Your task to perform on an android device: uninstall "The Home Depot" Image 0: 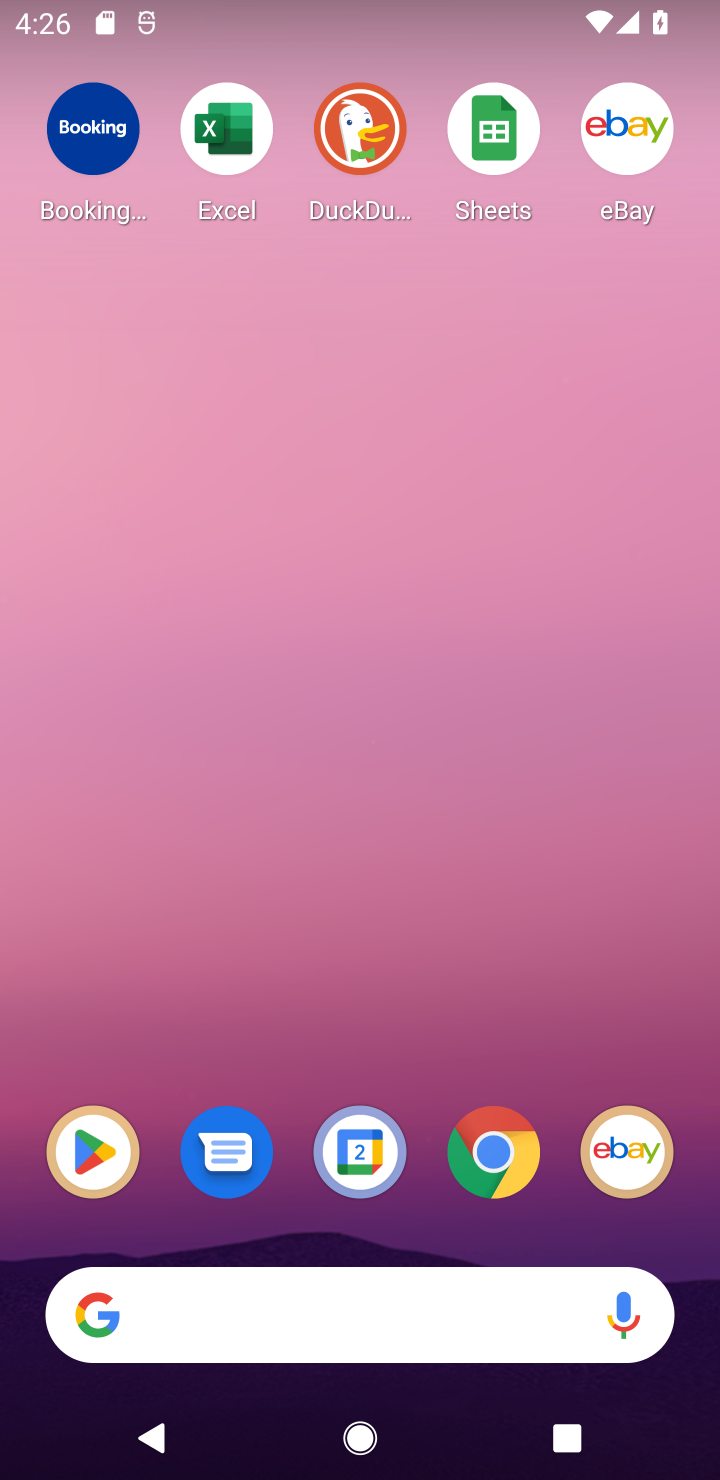
Step 0: drag from (321, 1251) to (401, 112)
Your task to perform on an android device: uninstall "The Home Depot" Image 1: 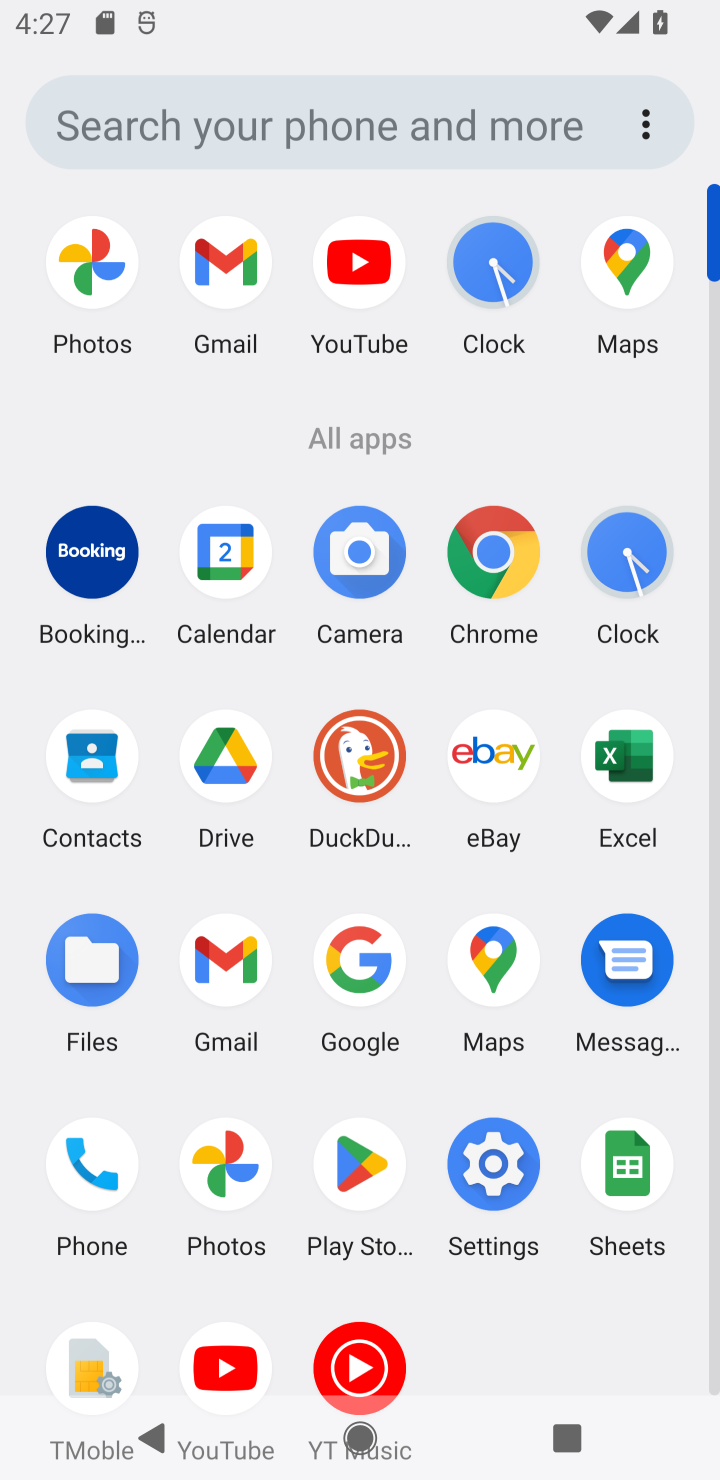
Step 1: click (361, 1155)
Your task to perform on an android device: uninstall "The Home Depot" Image 2: 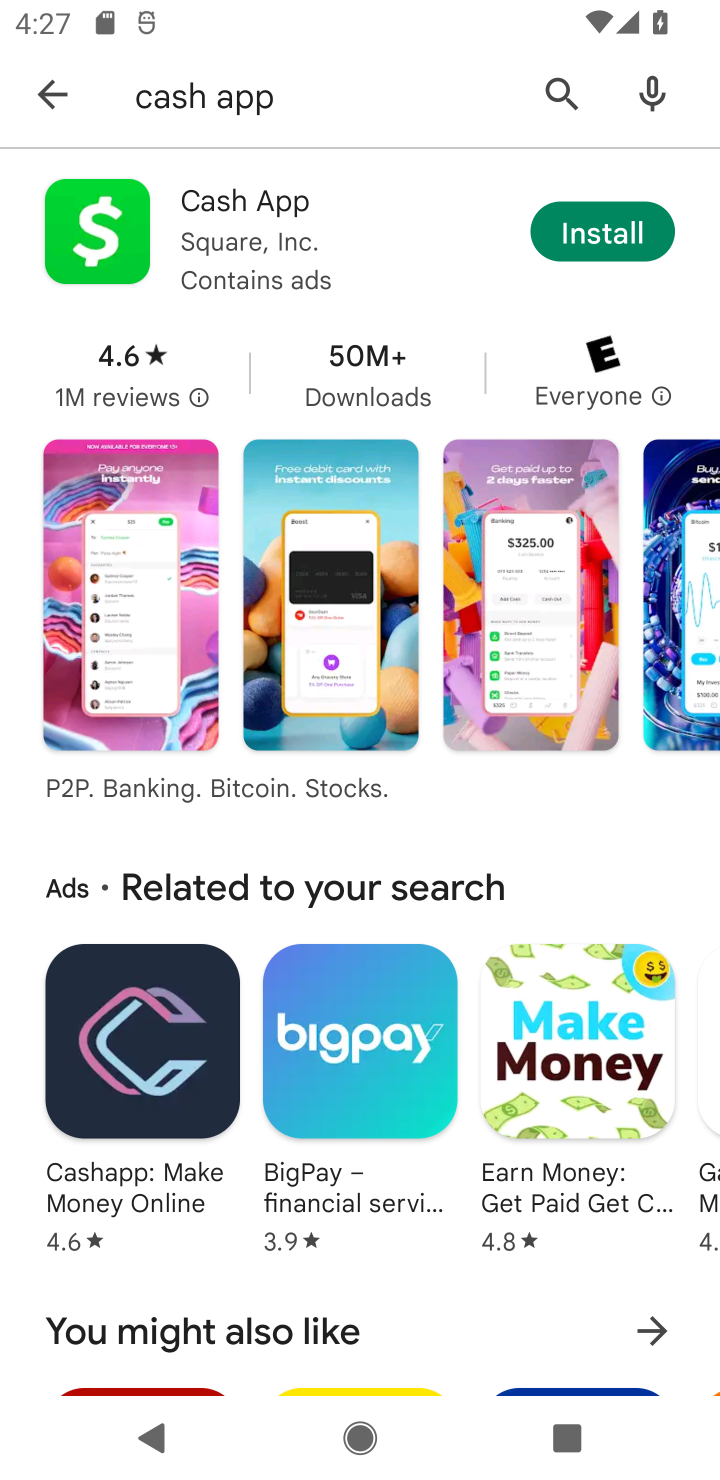
Step 2: click (50, 104)
Your task to perform on an android device: uninstall "The Home Depot" Image 3: 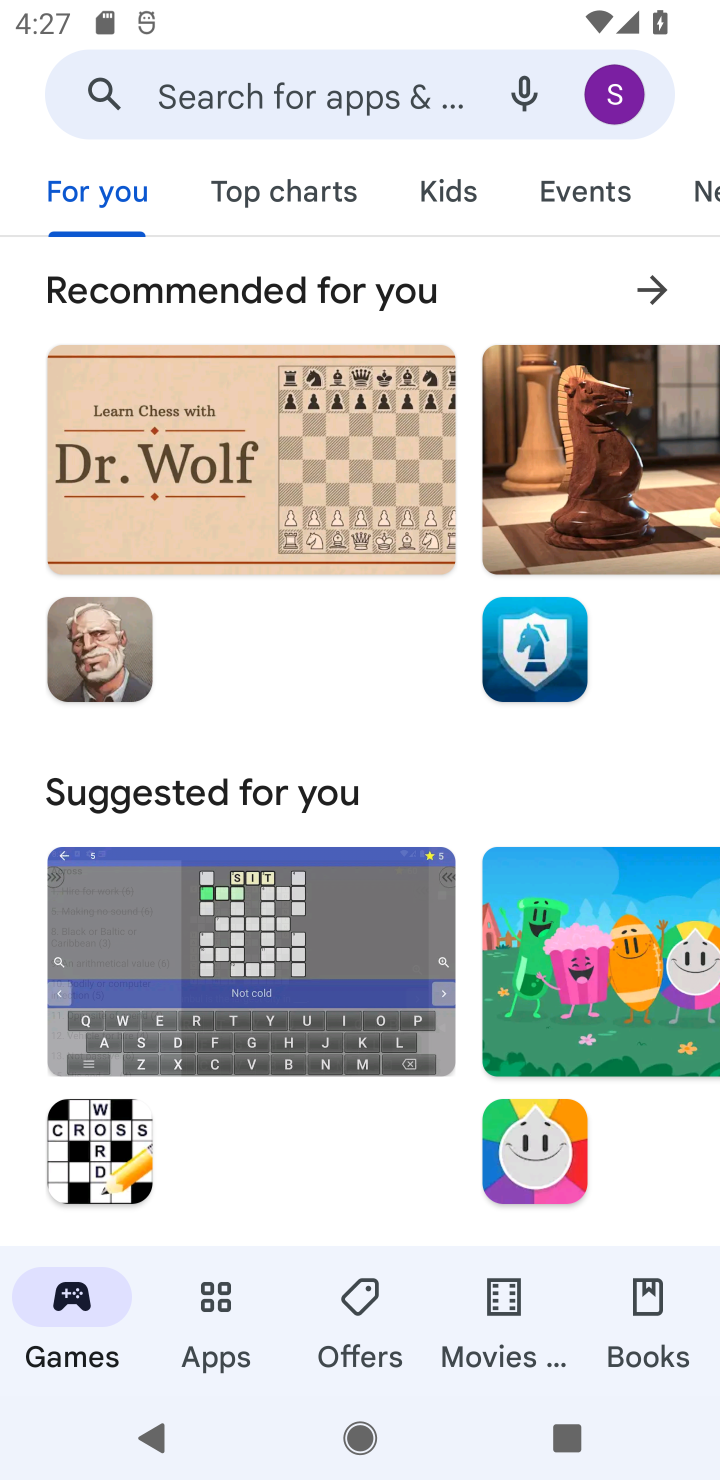
Step 3: click (202, 106)
Your task to perform on an android device: uninstall "The Home Depot" Image 4: 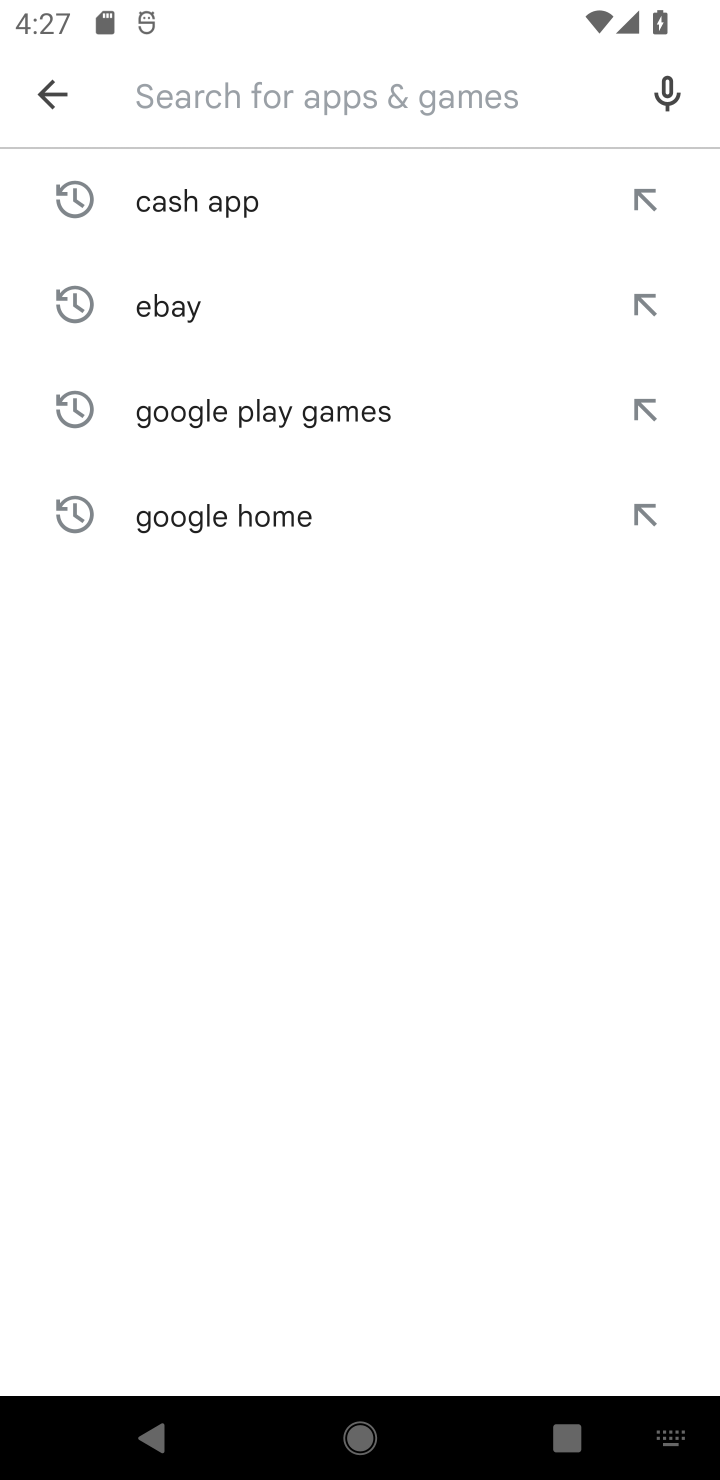
Step 4: type "The Home Depot"
Your task to perform on an android device: uninstall "The Home Depot" Image 5: 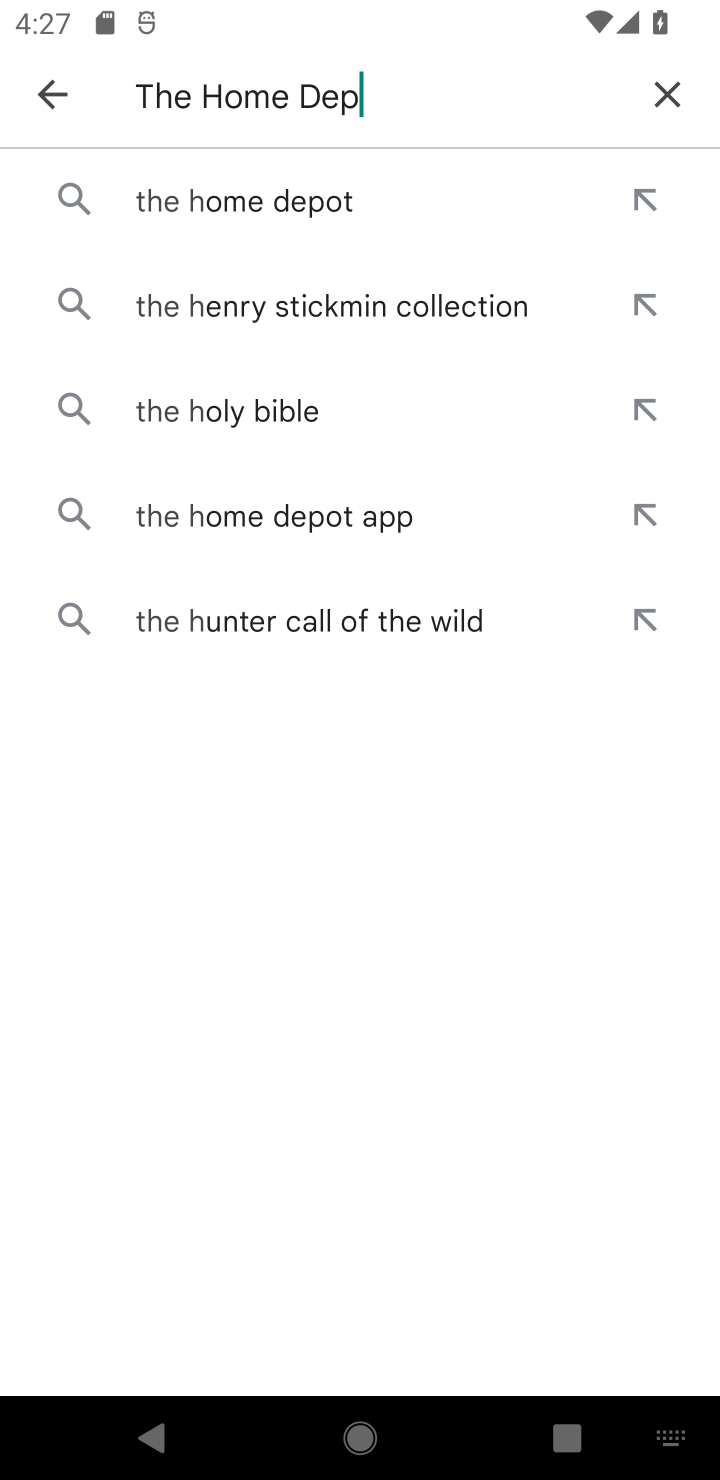
Step 5: type ""
Your task to perform on an android device: uninstall "The Home Depot" Image 6: 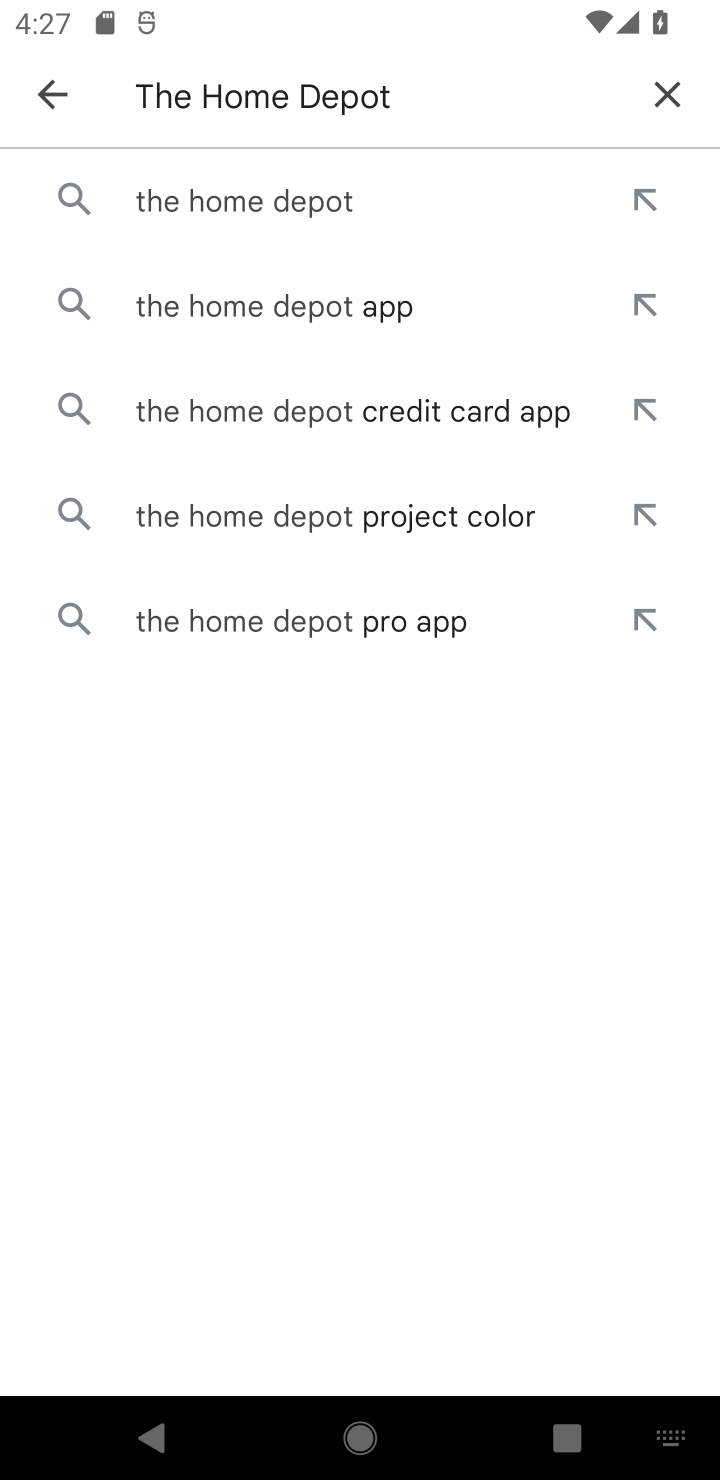
Step 6: click (299, 184)
Your task to perform on an android device: uninstall "The Home Depot" Image 7: 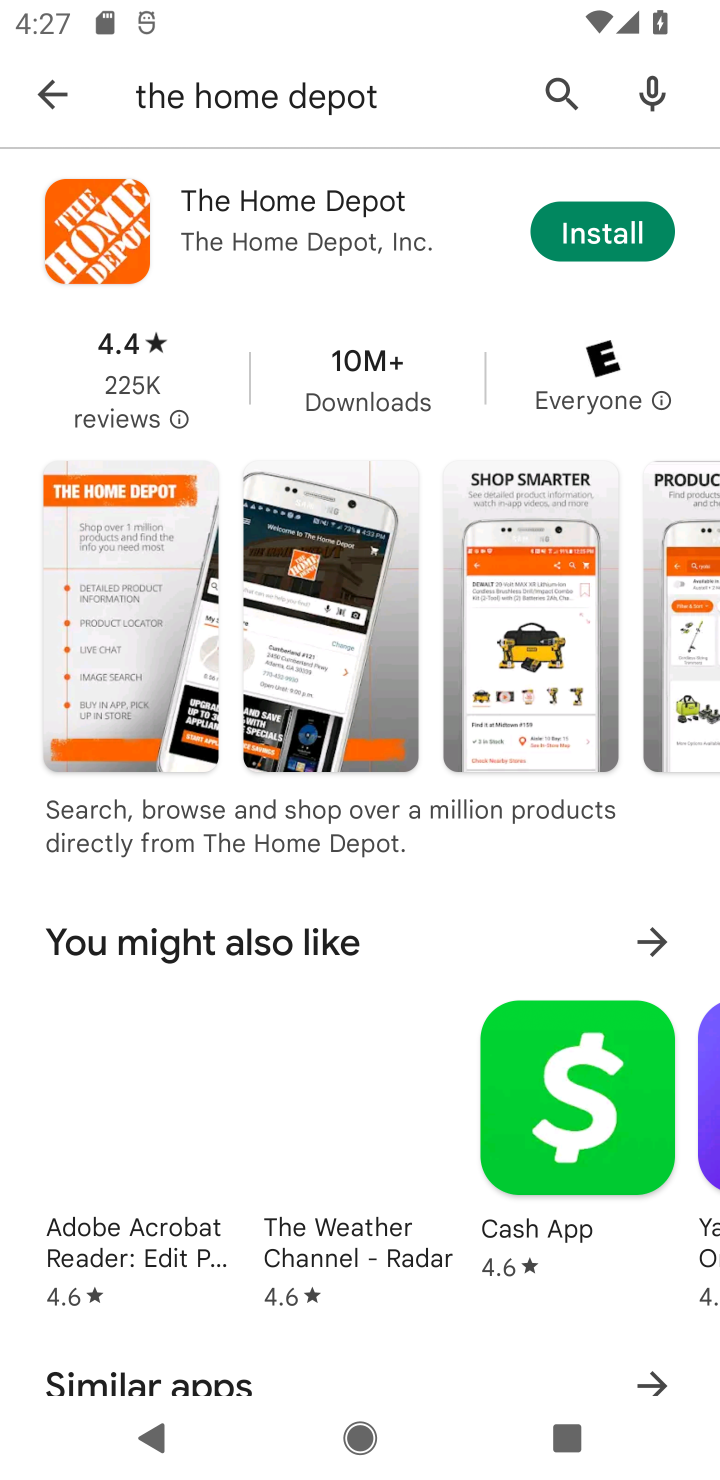
Step 7: task complete